Your task to perform on an android device: Go to settings Image 0: 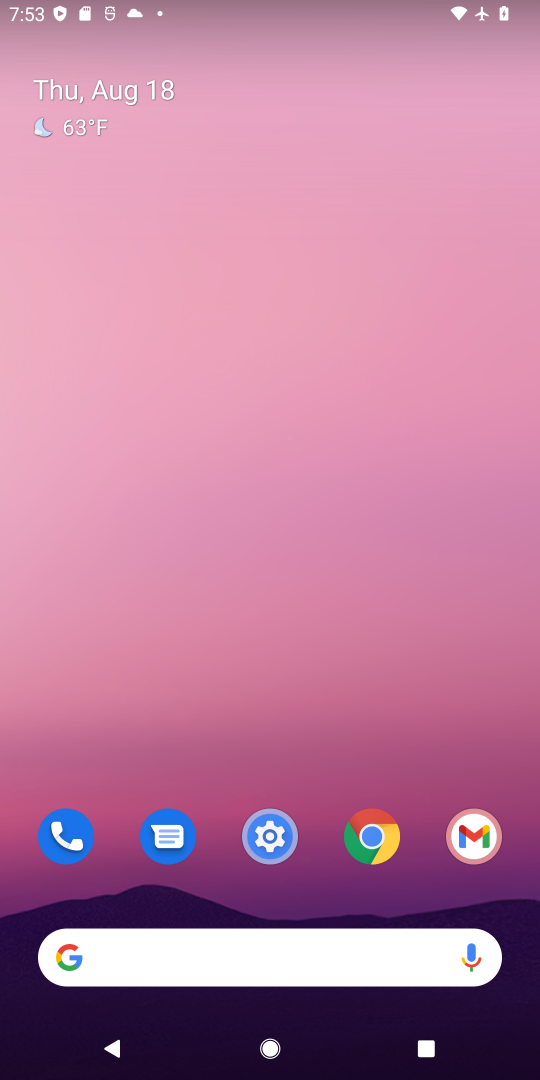
Step 0: drag from (319, 710) to (295, 21)
Your task to perform on an android device: Go to settings Image 1: 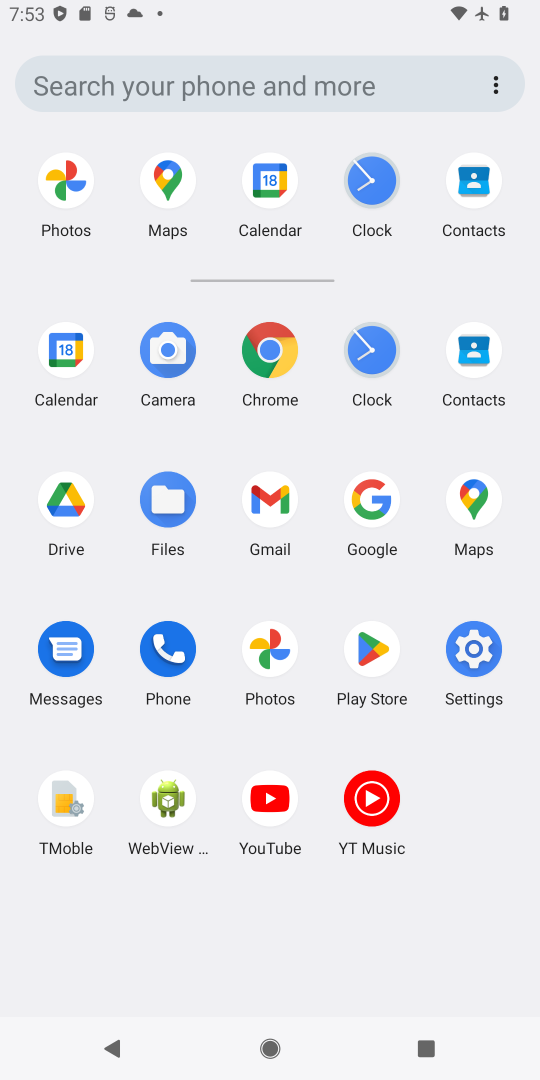
Step 1: click (458, 662)
Your task to perform on an android device: Go to settings Image 2: 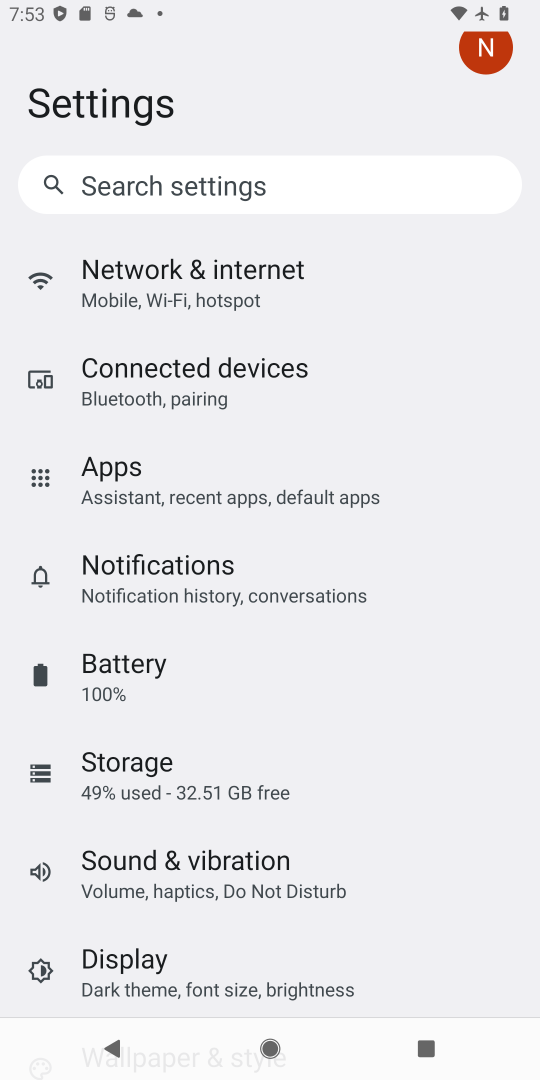
Step 2: task complete